Your task to perform on an android device: Open my contact list Image 0: 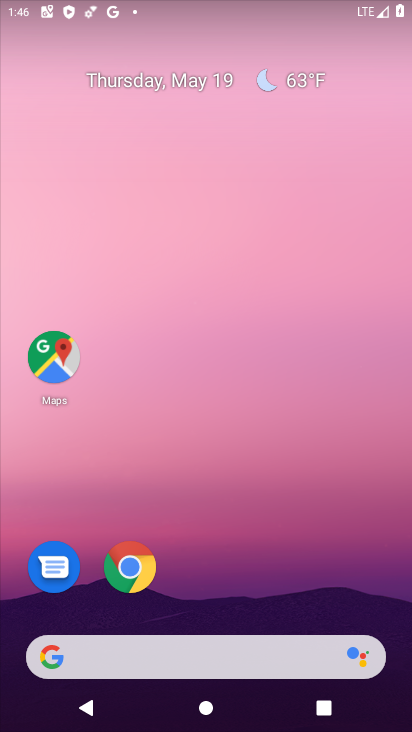
Step 0: drag from (326, 560) to (207, 71)
Your task to perform on an android device: Open my contact list Image 1: 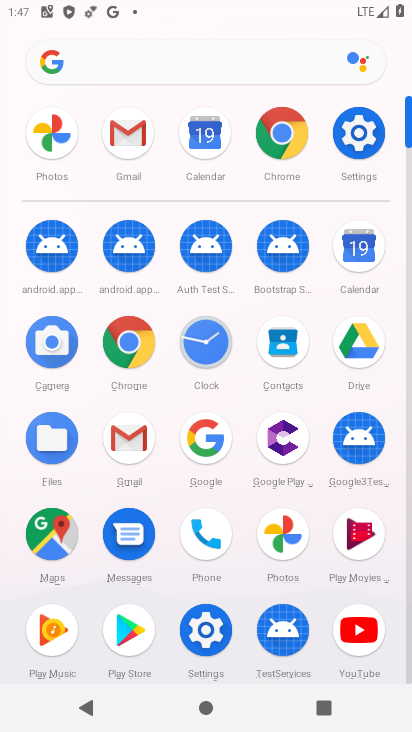
Step 1: click (289, 356)
Your task to perform on an android device: Open my contact list Image 2: 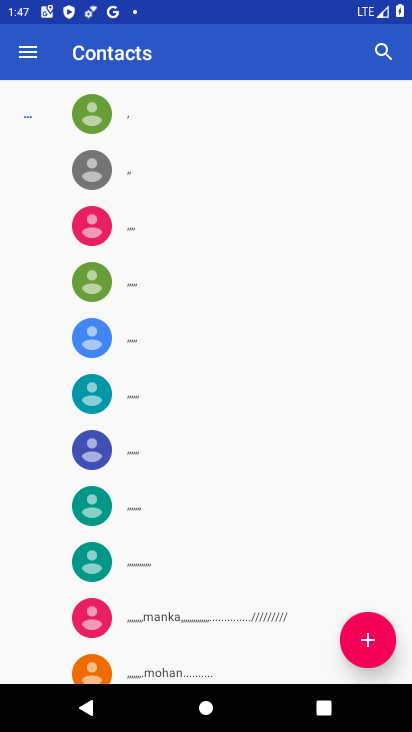
Step 2: task complete